Your task to perform on an android device: toggle location history Image 0: 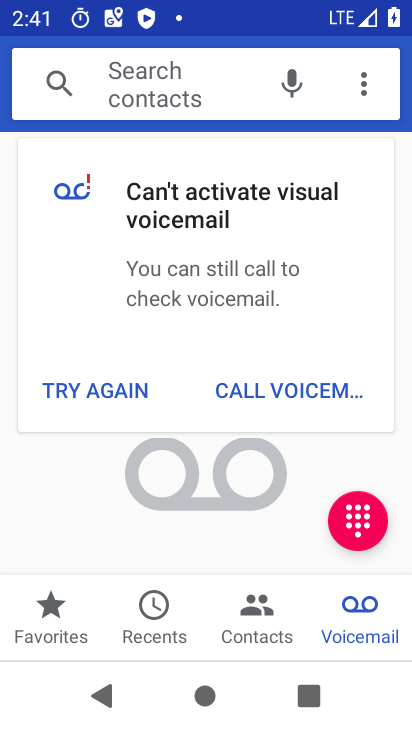
Step 0: press home button
Your task to perform on an android device: toggle location history Image 1: 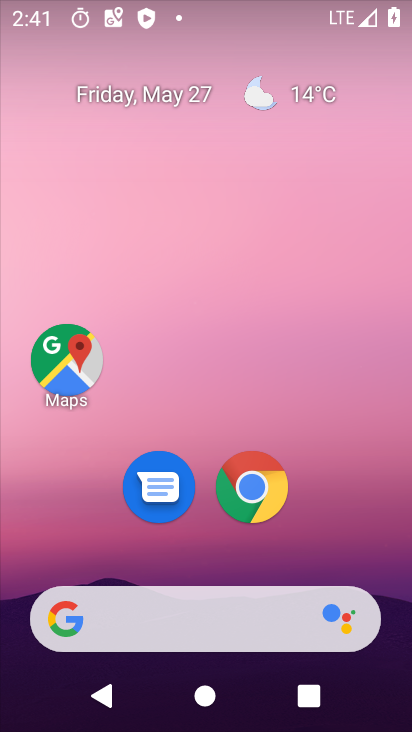
Step 1: drag from (363, 530) to (348, 121)
Your task to perform on an android device: toggle location history Image 2: 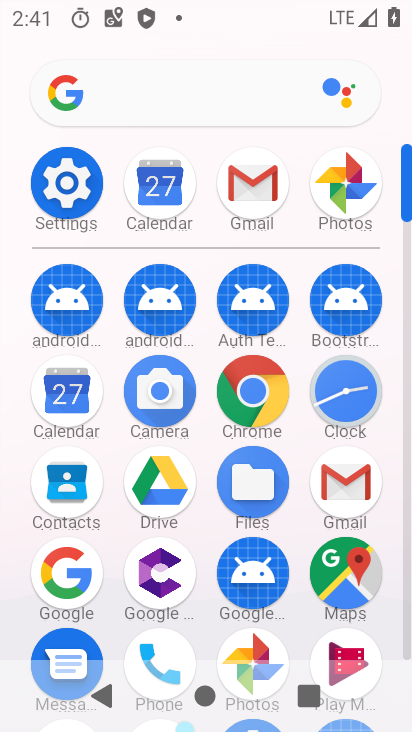
Step 2: click (48, 176)
Your task to perform on an android device: toggle location history Image 3: 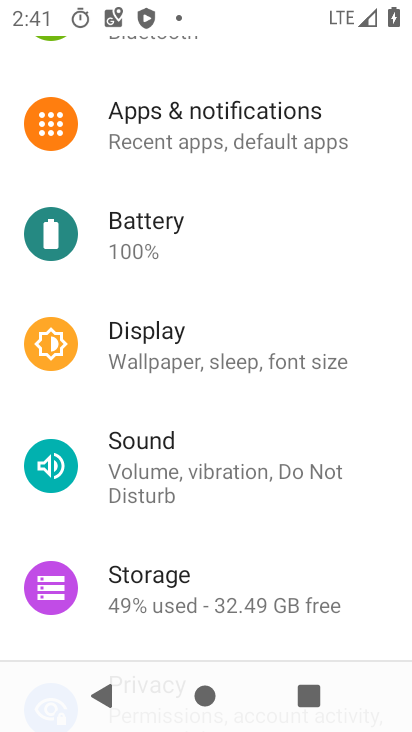
Step 3: drag from (259, 529) to (270, 153)
Your task to perform on an android device: toggle location history Image 4: 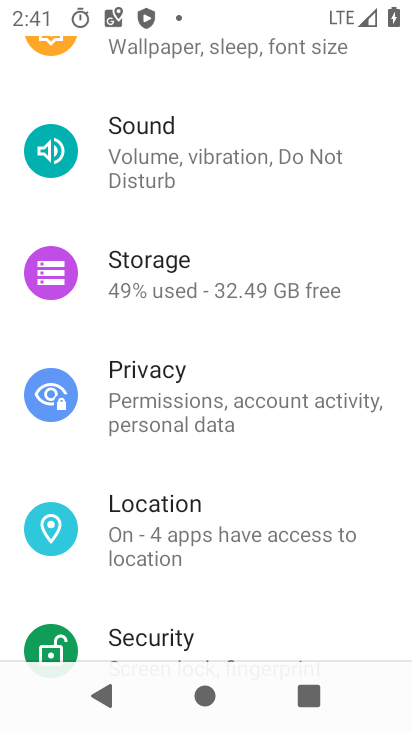
Step 4: click (180, 514)
Your task to perform on an android device: toggle location history Image 5: 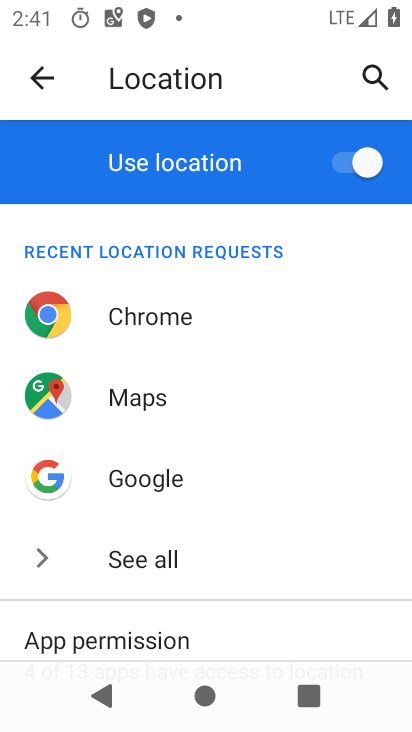
Step 5: drag from (242, 573) to (311, 121)
Your task to perform on an android device: toggle location history Image 6: 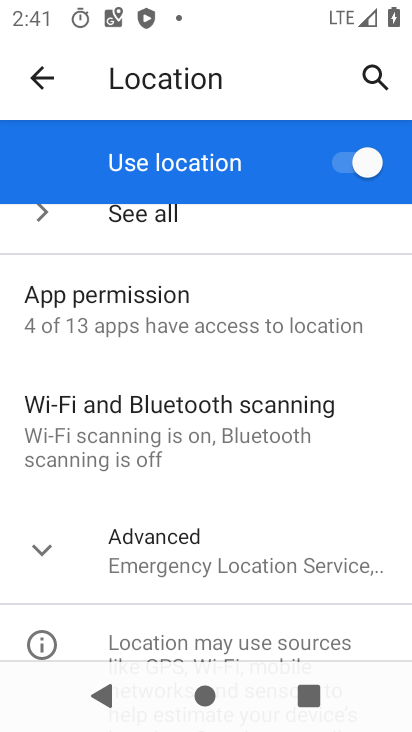
Step 6: drag from (210, 546) to (325, 157)
Your task to perform on an android device: toggle location history Image 7: 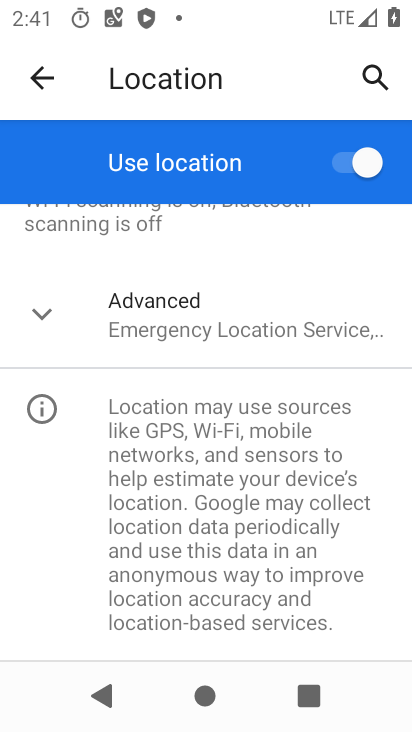
Step 7: click (191, 297)
Your task to perform on an android device: toggle location history Image 8: 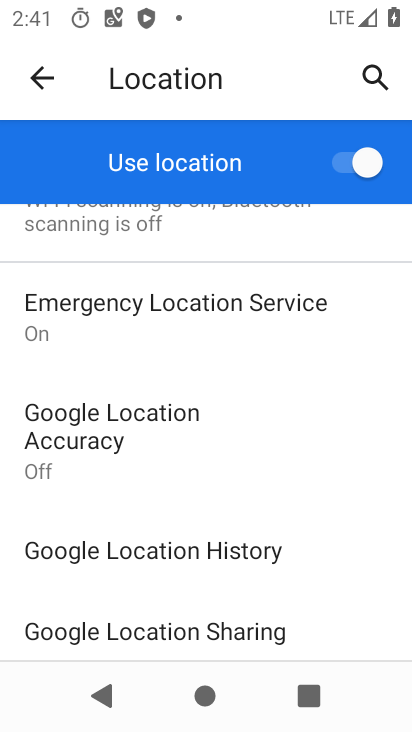
Step 8: click (216, 548)
Your task to perform on an android device: toggle location history Image 9: 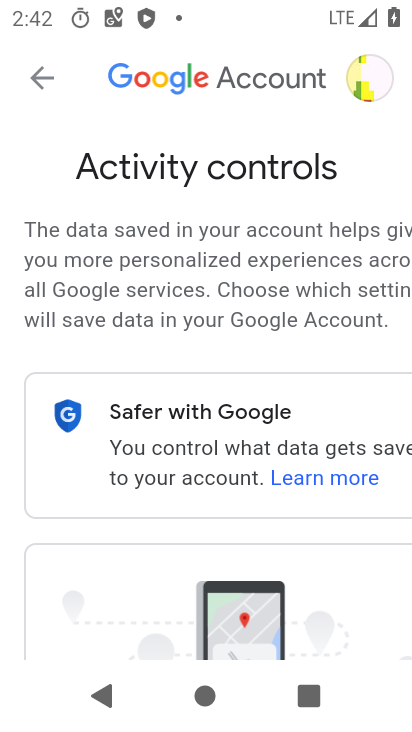
Step 9: drag from (224, 537) to (323, 109)
Your task to perform on an android device: toggle location history Image 10: 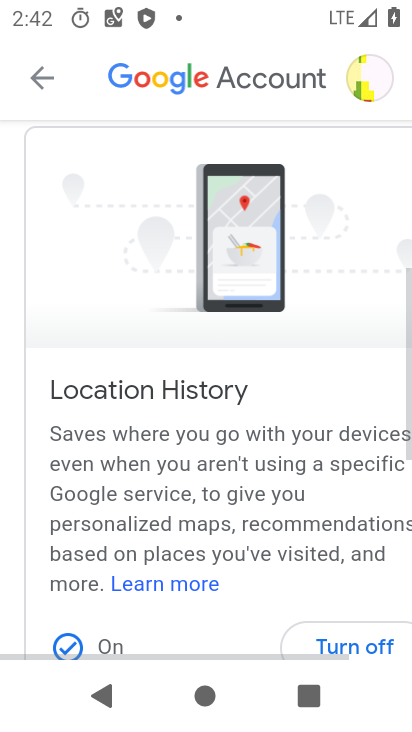
Step 10: drag from (288, 525) to (364, 179)
Your task to perform on an android device: toggle location history Image 11: 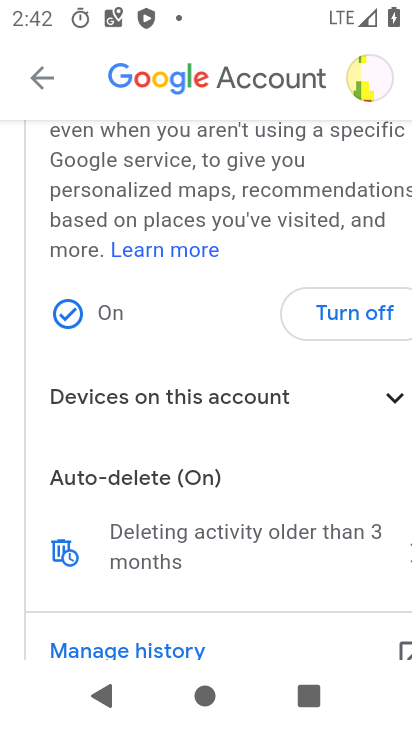
Step 11: click (363, 297)
Your task to perform on an android device: toggle location history Image 12: 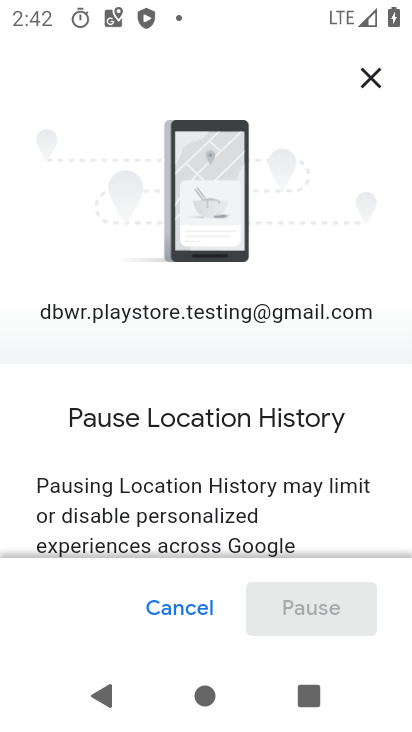
Step 12: drag from (304, 475) to (362, 91)
Your task to perform on an android device: toggle location history Image 13: 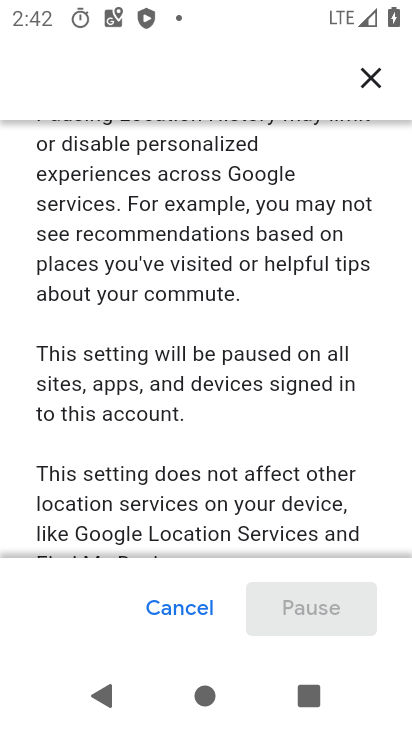
Step 13: drag from (290, 489) to (341, 44)
Your task to perform on an android device: toggle location history Image 14: 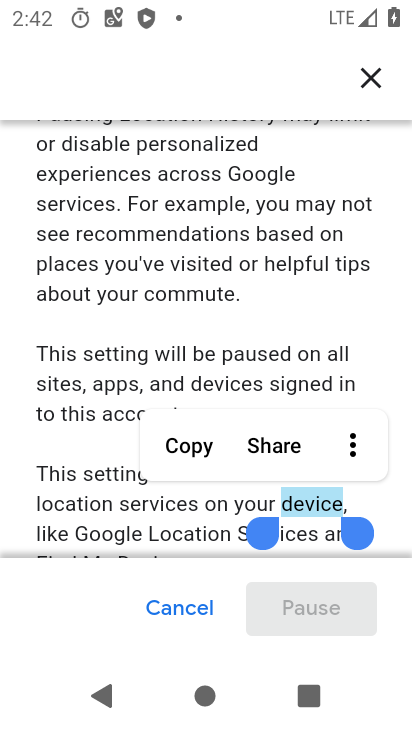
Step 14: click (176, 506)
Your task to perform on an android device: toggle location history Image 15: 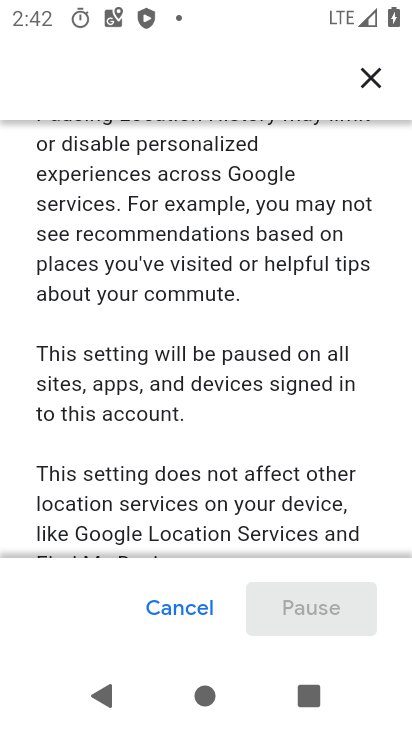
Step 15: drag from (223, 498) to (281, 127)
Your task to perform on an android device: toggle location history Image 16: 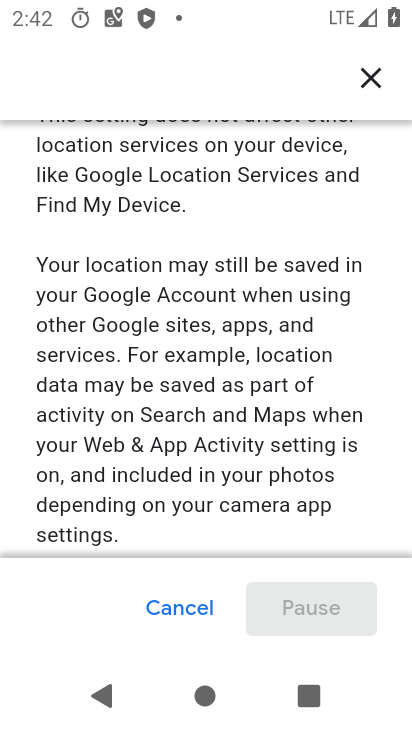
Step 16: drag from (271, 522) to (314, 125)
Your task to perform on an android device: toggle location history Image 17: 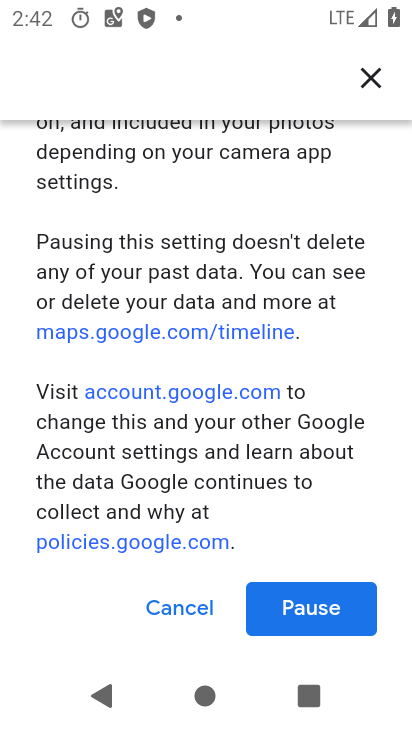
Step 17: click (322, 608)
Your task to perform on an android device: toggle location history Image 18: 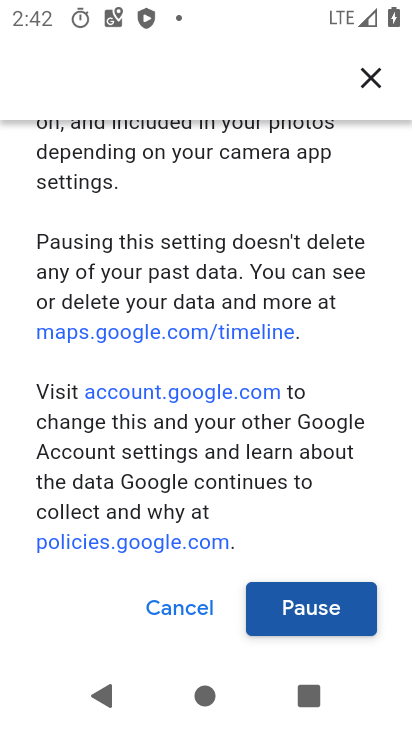
Step 18: click (321, 612)
Your task to perform on an android device: toggle location history Image 19: 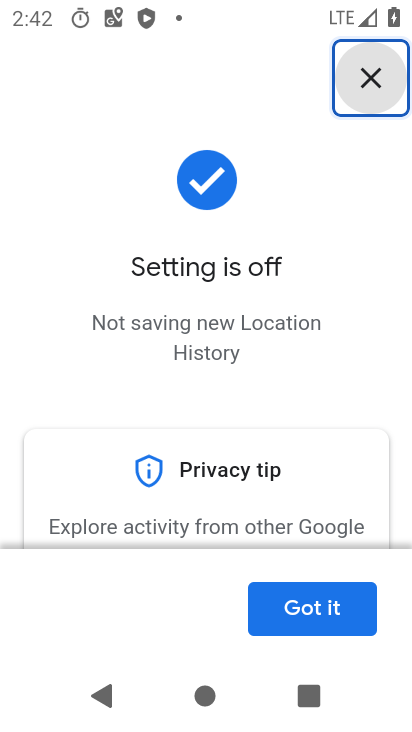
Step 19: task complete